Your task to perform on an android device: Empty the shopping cart on target. Search for "razer kraken" on target, select the first entry, add it to the cart, then select checkout. Image 0: 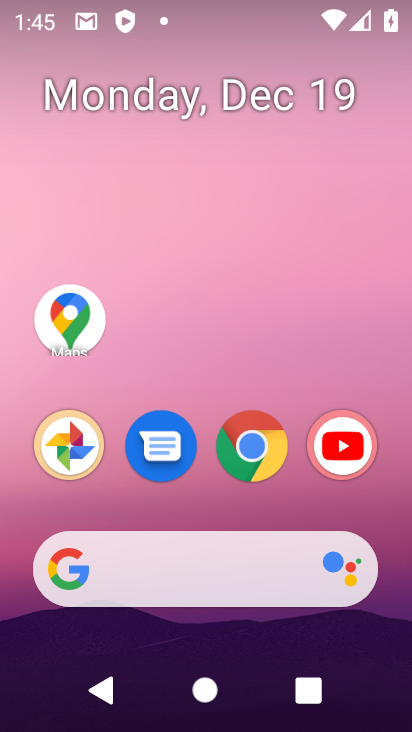
Step 0: click (257, 436)
Your task to perform on an android device: Empty the shopping cart on target. Search for "razer kraken" on target, select the first entry, add it to the cart, then select checkout. Image 1: 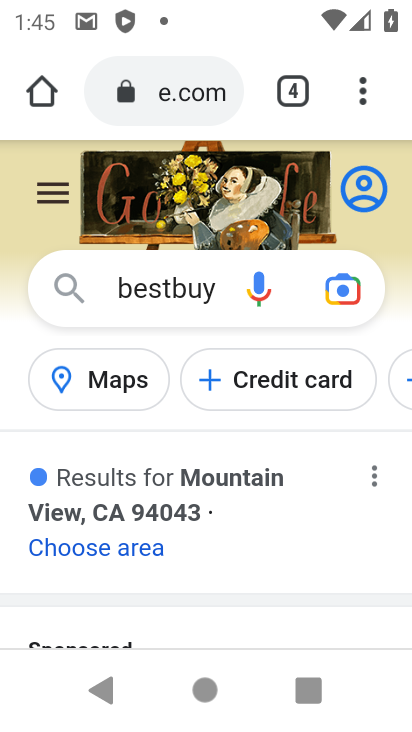
Step 1: task complete